Your task to perform on an android device: Open the phone app and click the voicemail tab. Image 0: 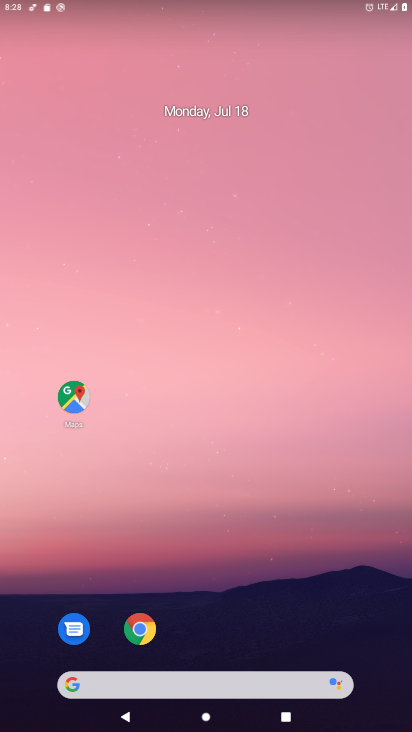
Step 0: drag from (190, 635) to (199, 87)
Your task to perform on an android device: Open the phone app and click the voicemail tab. Image 1: 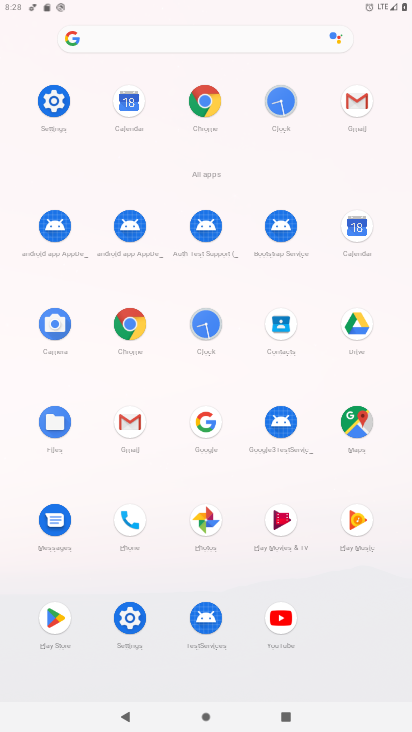
Step 1: click (121, 530)
Your task to perform on an android device: Open the phone app and click the voicemail tab. Image 2: 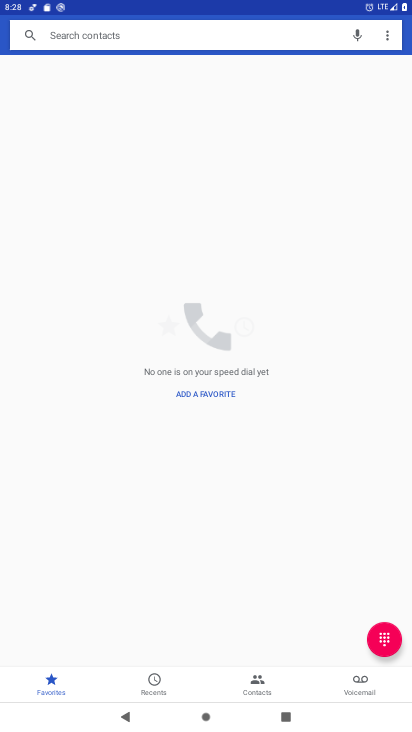
Step 2: click (355, 689)
Your task to perform on an android device: Open the phone app and click the voicemail tab. Image 3: 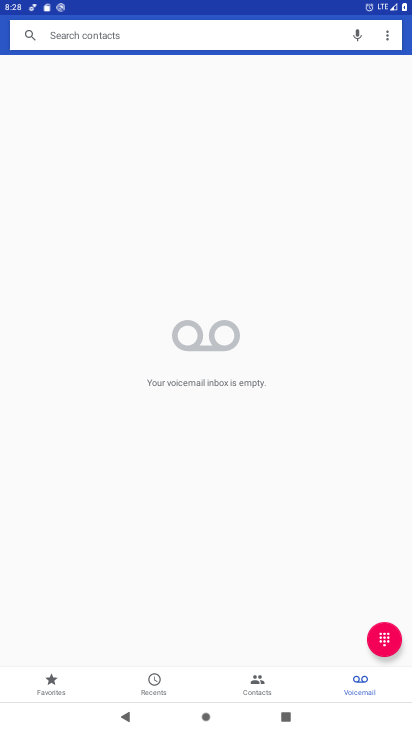
Step 3: task complete